Your task to perform on an android device: read, delete, or share a saved page in the chrome app Image 0: 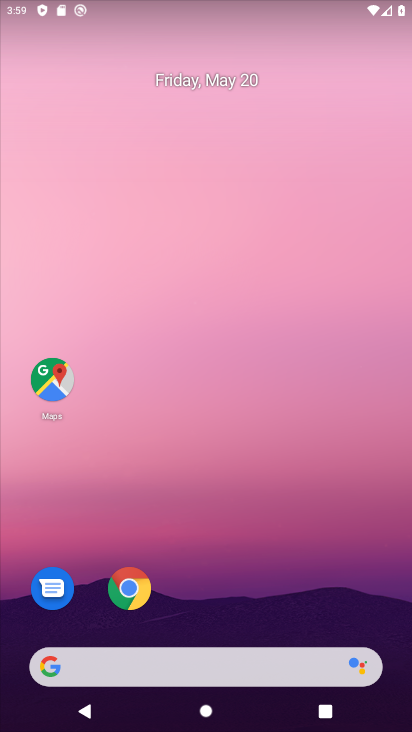
Step 0: click (125, 588)
Your task to perform on an android device: read, delete, or share a saved page in the chrome app Image 1: 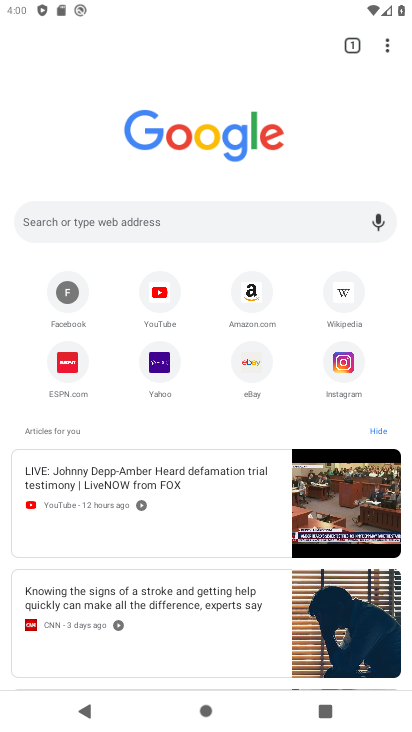
Step 1: drag from (384, 47) to (96, 192)
Your task to perform on an android device: read, delete, or share a saved page in the chrome app Image 2: 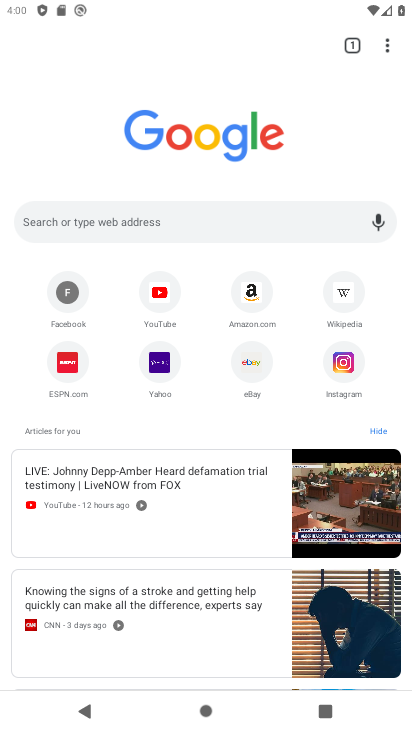
Step 2: click (246, 362)
Your task to perform on an android device: read, delete, or share a saved page in the chrome app Image 3: 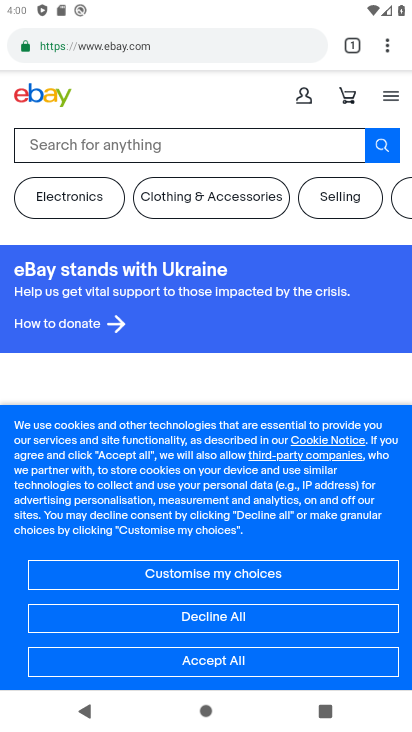
Step 3: drag from (210, 453) to (232, 131)
Your task to perform on an android device: read, delete, or share a saved page in the chrome app Image 4: 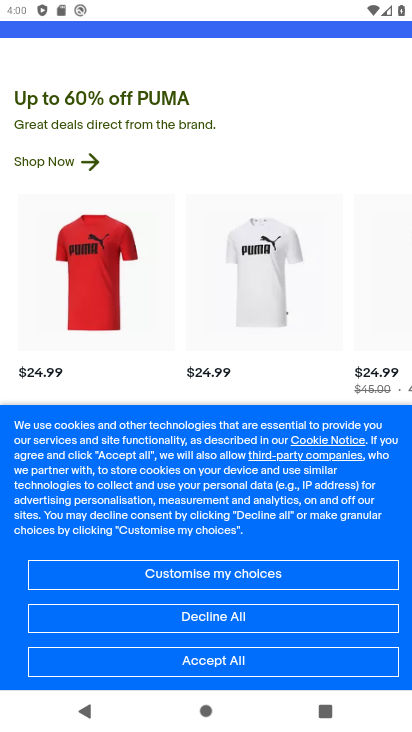
Step 4: drag from (195, 125) to (160, 558)
Your task to perform on an android device: read, delete, or share a saved page in the chrome app Image 5: 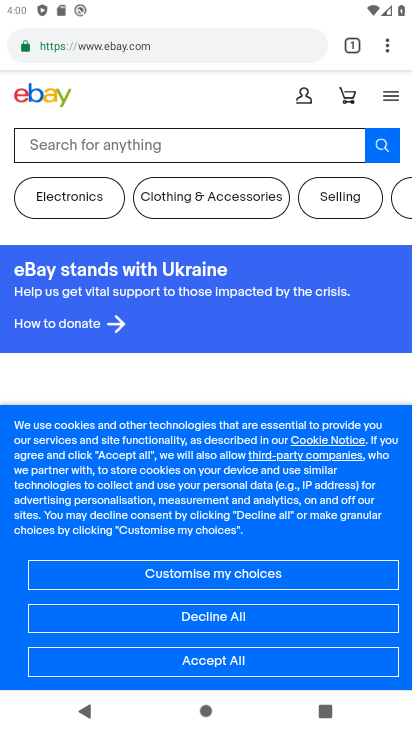
Step 5: drag from (383, 39) to (259, 45)
Your task to perform on an android device: read, delete, or share a saved page in the chrome app Image 6: 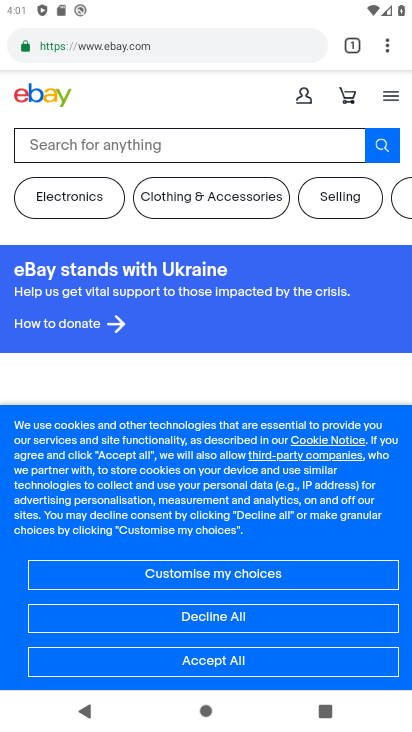
Step 6: drag from (385, 44) to (244, 38)
Your task to perform on an android device: read, delete, or share a saved page in the chrome app Image 7: 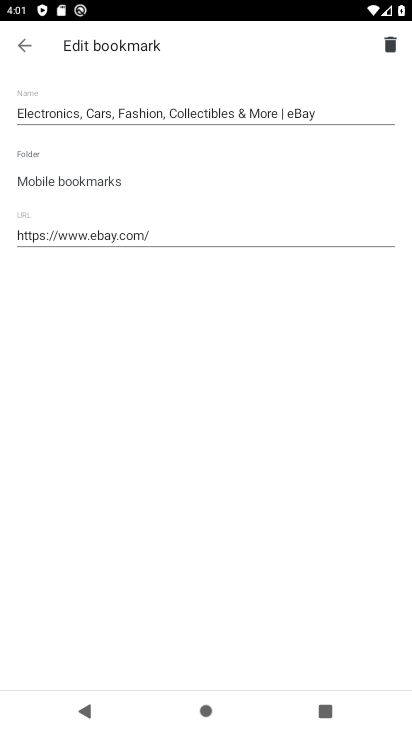
Step 7: click (386, 46)
Your task to perform on an android device: read, delete, or share a saved page in the chrome app Image 8: 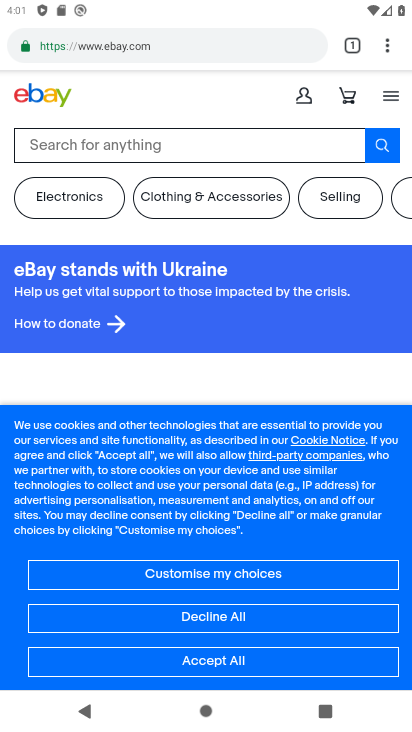
Step 8: task complete